Your task to perform on an android device: Go to display settings Image 0: 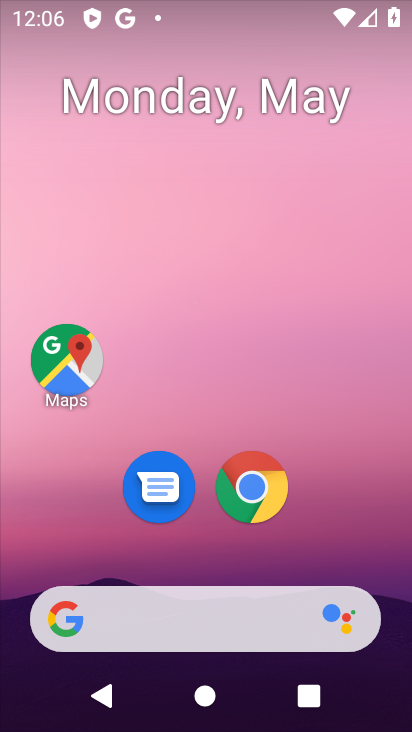
Step 0: drag from (333, 560) to (337, 17)
Your task to perform on an android device: Go to display settings Image 1: 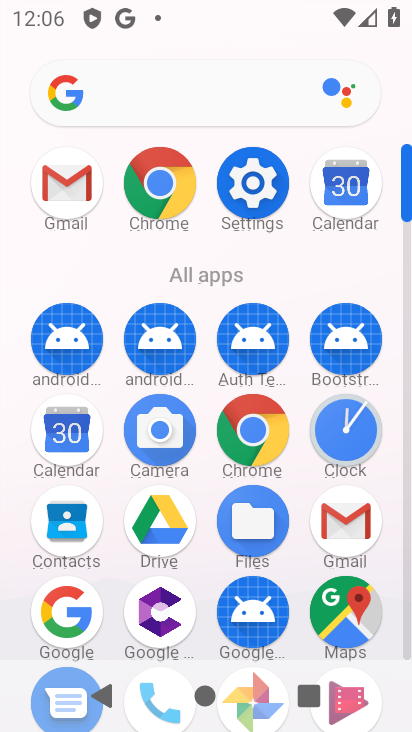
Step 1: click (229, 198)
Your task to perform on an android device: Go to display settings Image 2: 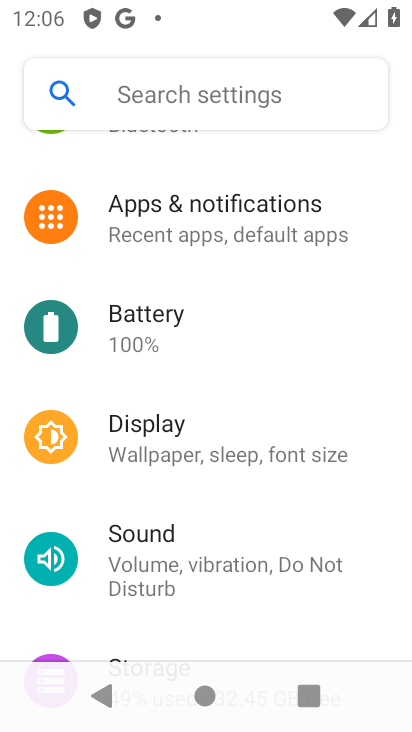
Step 2: click (174, 449)
Your task to perform on an android device: Go to display settings Image 3: 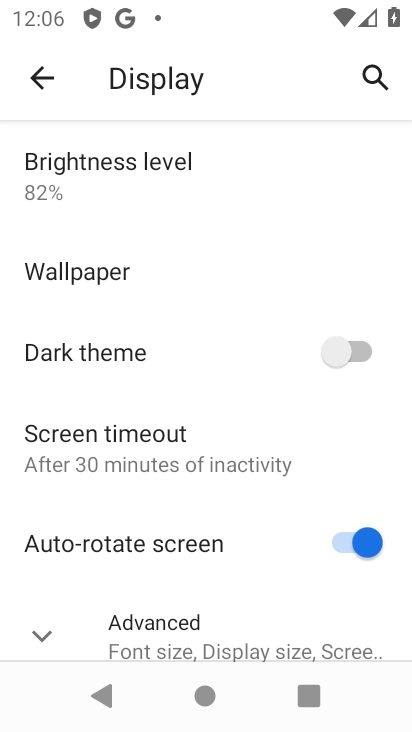
Step 3: task complete